Your task to perform on an android device: Go to Yahoo.com Image 0: 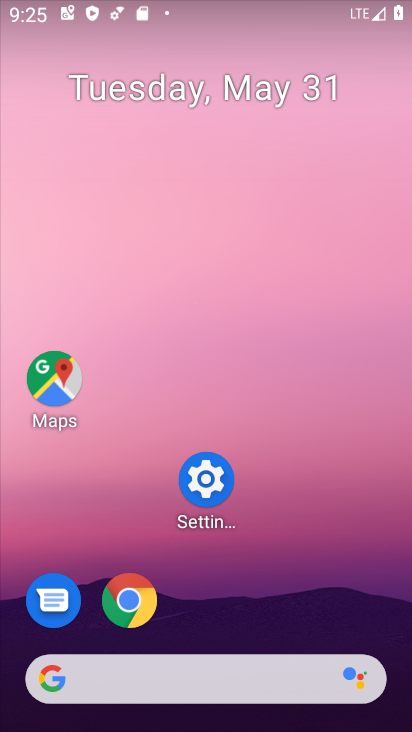
Step 0: press home button
Your task to perform on an android device: Go to Yahoo.com Image 1: 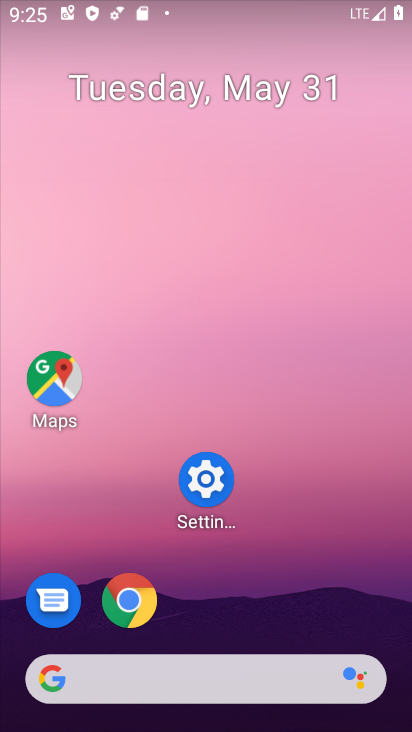
Step 1: click (135, 606)
Your task to perform on an android device: Go to Yahoo.com Image 2: 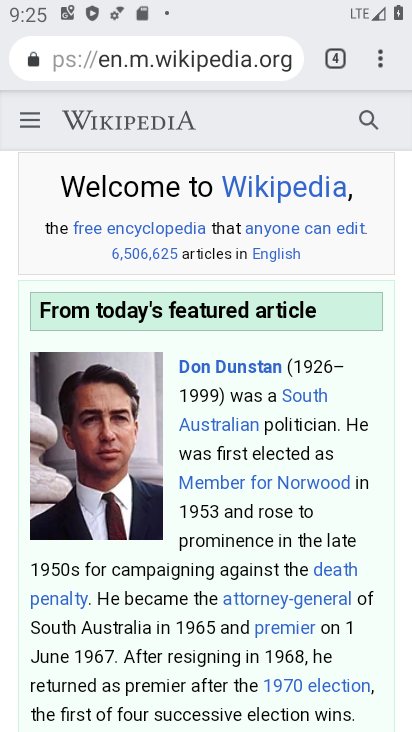
Step 2: click (330, 67)
Your task to perform on an android device: Go to Yahoo.com Image 3: 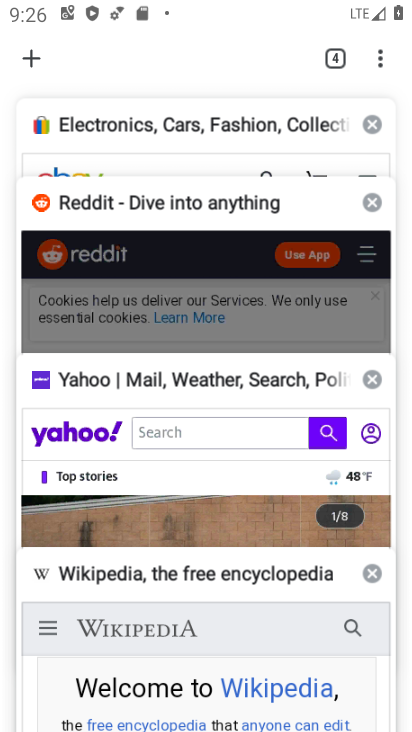
Step 3: click (36, 59)
Your task to perform on an android device: Go to Yahoo.com Image 4: 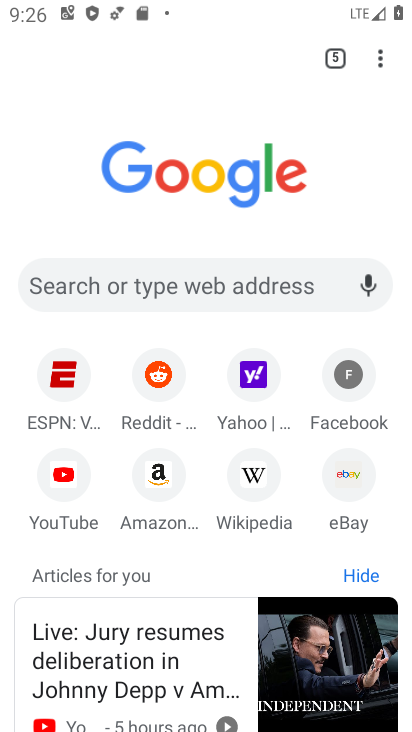
Step 4: click (262, 382)
Your task to perform on an android device: Go to Yahoo.com Image 5: 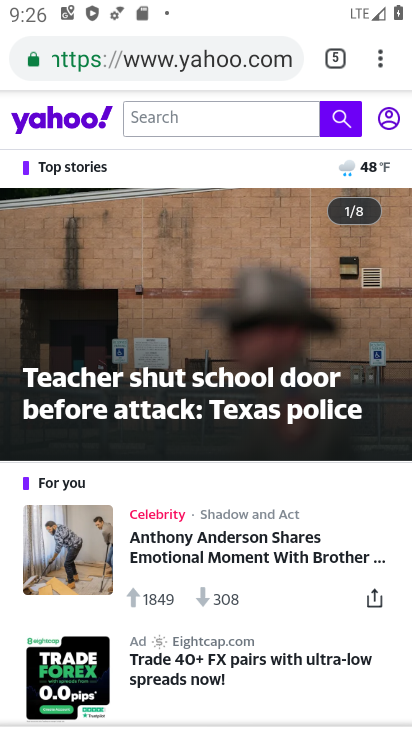
Step 5: task complete